Your task to perform on an android device: Go to network settings Image 0: 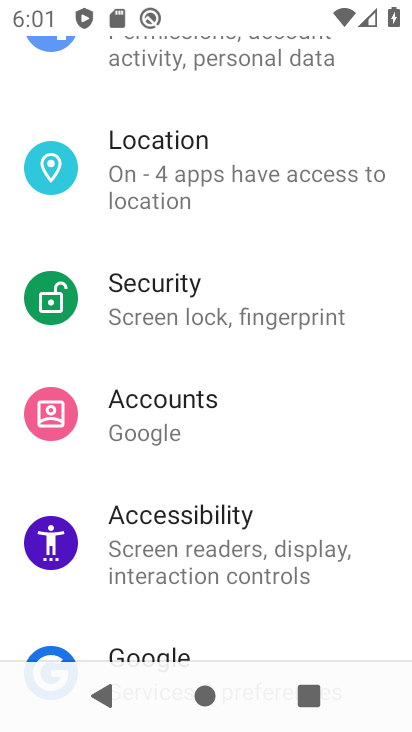
Step 0: drag from (249, 196) to (229, 524)
Your task to perform on an android device: Go to network settings Image 1: 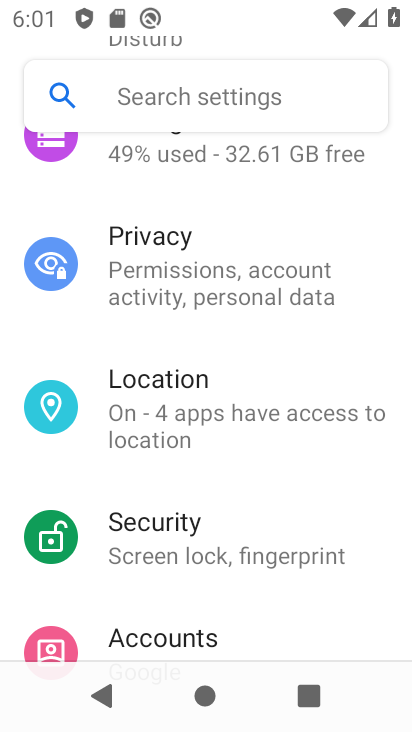
Step 1: drag from (347, 171) to (309, 605)
Your task to perform on an android device: Go to network settings Image 2: 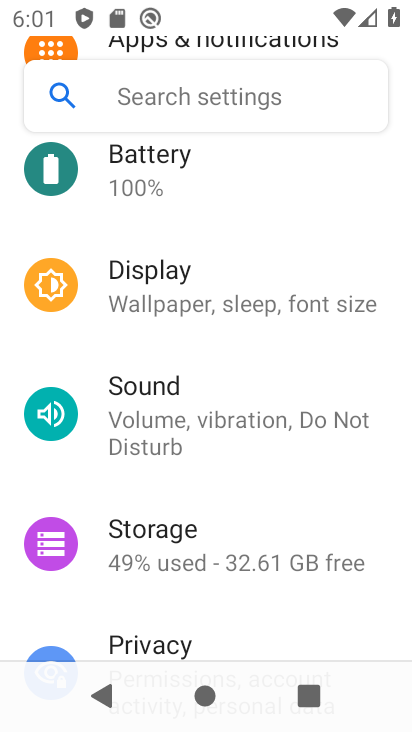
Step 2: drag from (330, 201) to (305, 549)
Your task to perform on an android device: Go to network settings Image 3: 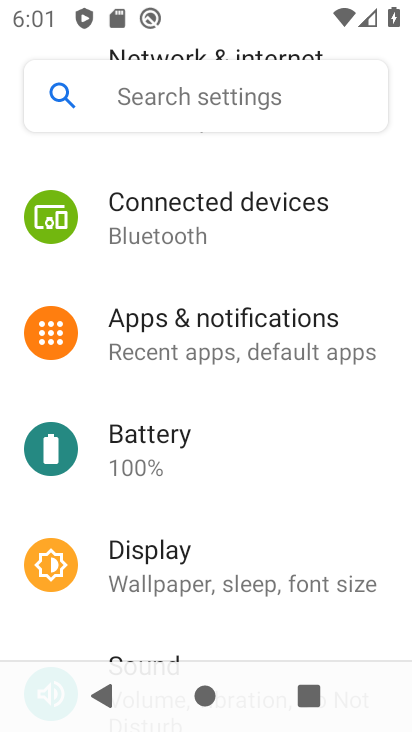
Step 3: drag from (375, 159) to (335, 502)
Your task to perform on an android device: Go to network settings Image 4: 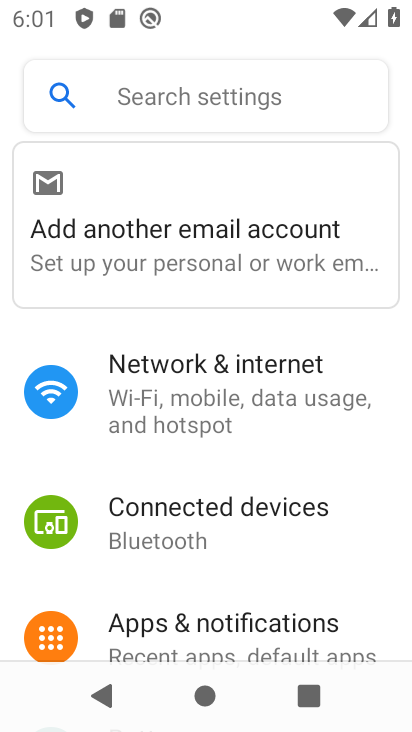
Step 4: click (175, 357)
Your task to perform on an android device: Go to network settings Image 5: 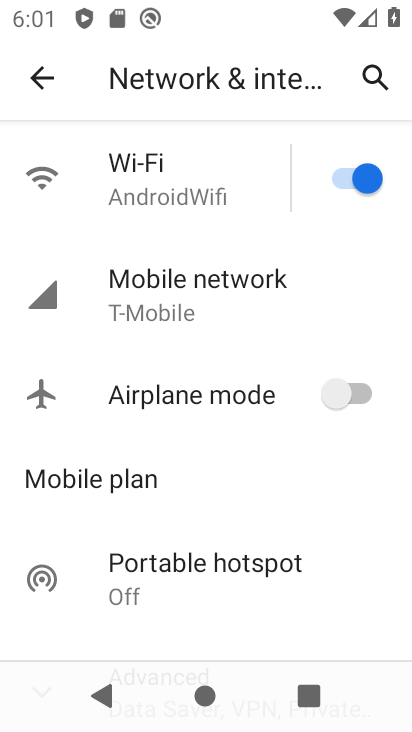
Step 5: task complete